Your task to perform on an android device: turn off notifications in google photos Image 0: 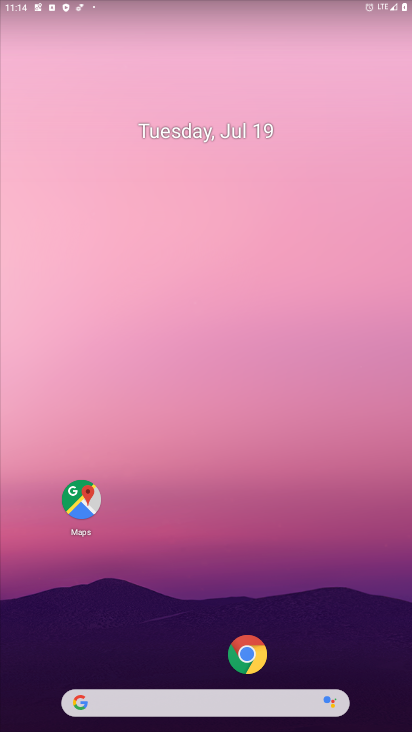
Step 0: drag from (183, 630) to (197, 87)
Your task to perform on an android device: turn off notifications in google photos Image 1: 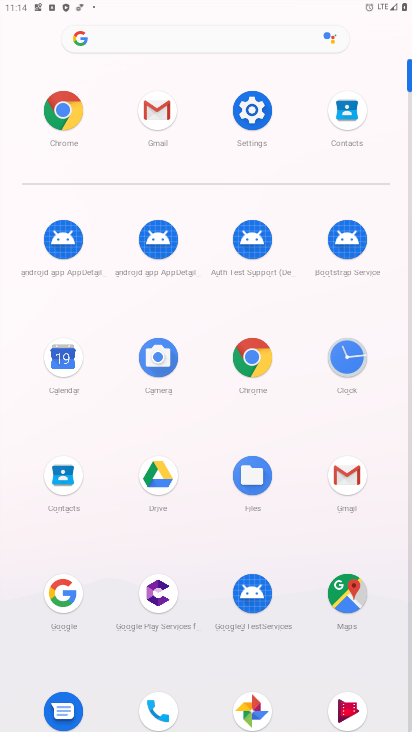
Step 1: click (249, 704)
Your task to perform on an android device: turn off notifications in google photos Image 2: 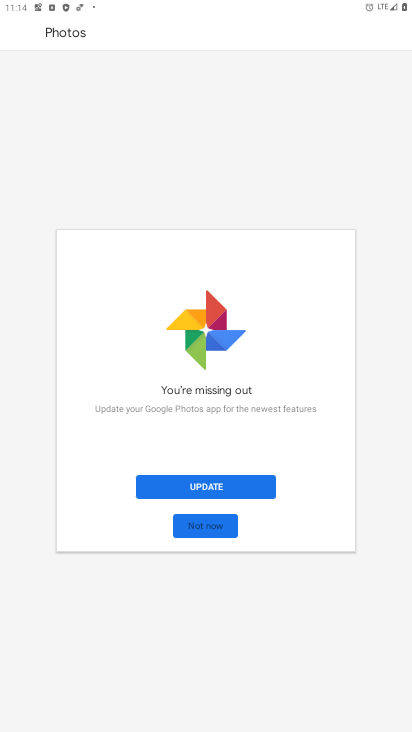
Step 2: click (211, 534)
Your task to perform on an android device: turn off notifications in google photos Image 3: 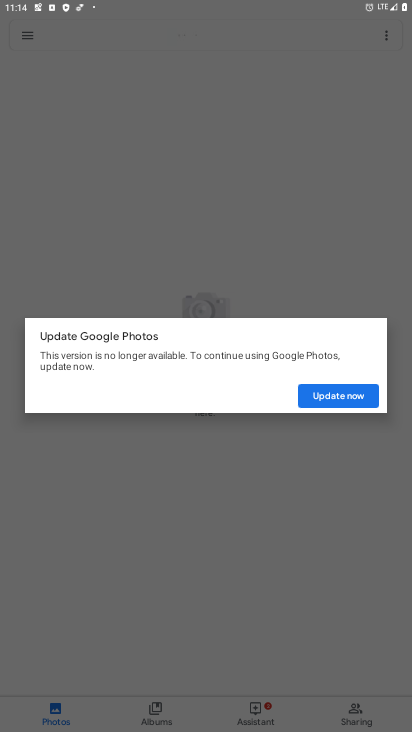
Step 3: click (343, 393)
Your task to perform on an android device: turn off notifications in google photos Image 4: 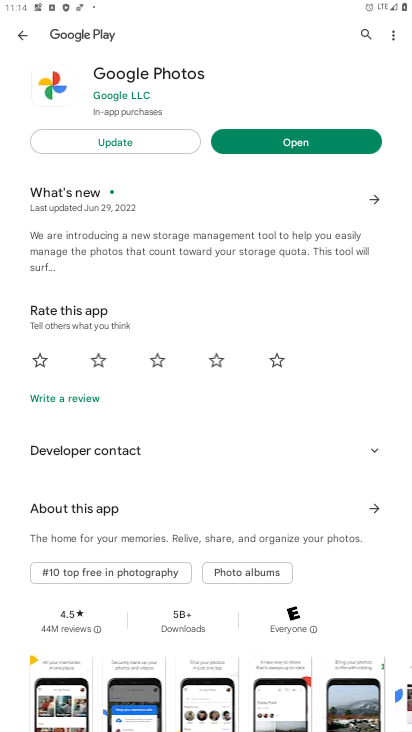
Step 4: click (310, 152)
Your task to perform on an android device: turn off notifications in google photos Image 5: 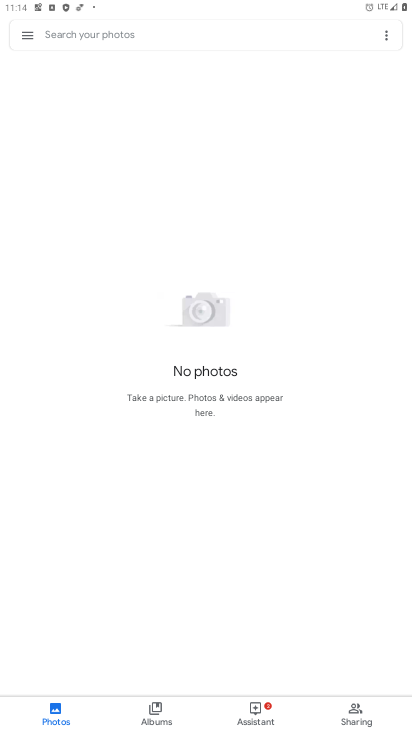
Step 5: click (24, 43)
Your task to perform on an android device: turn off notifications in google photos Image 6: 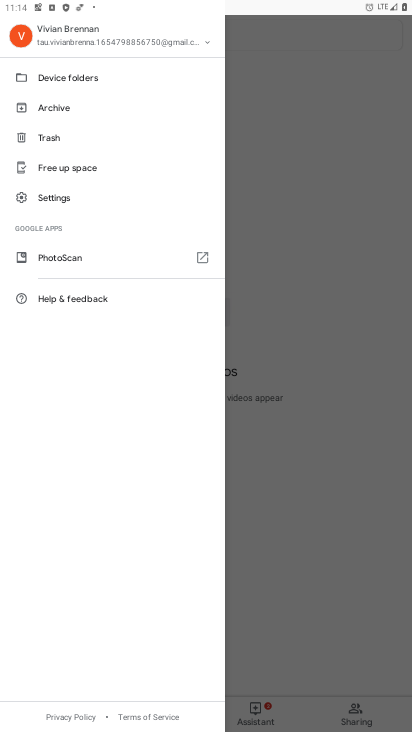
Step 6: click (56, 203)
Your task to perform on an android device: turn off notifications in google photos Image 7: 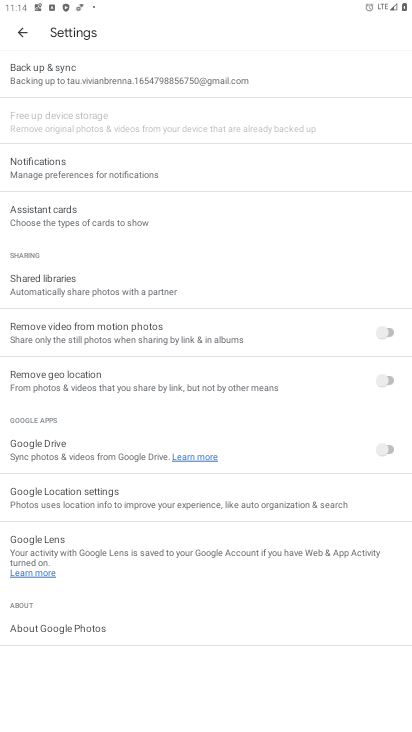
Step 7: click (85, 189)
Your task to perform on an android device: turn off notifications in google photos Image 8: 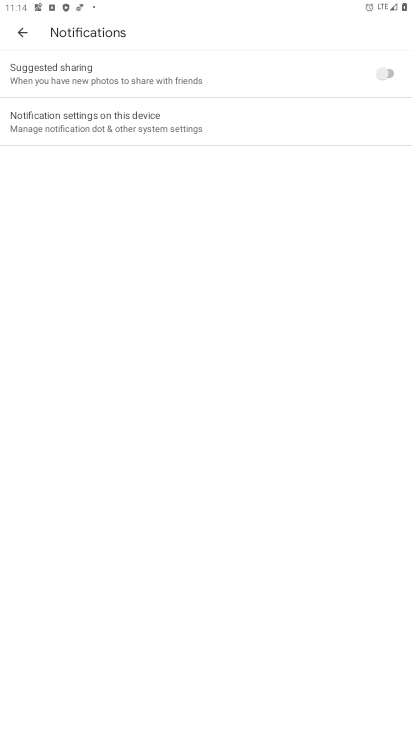
Step 8: click (180, 129)
Your task to perform on an android device: turn off notifications in google photos Image 9: 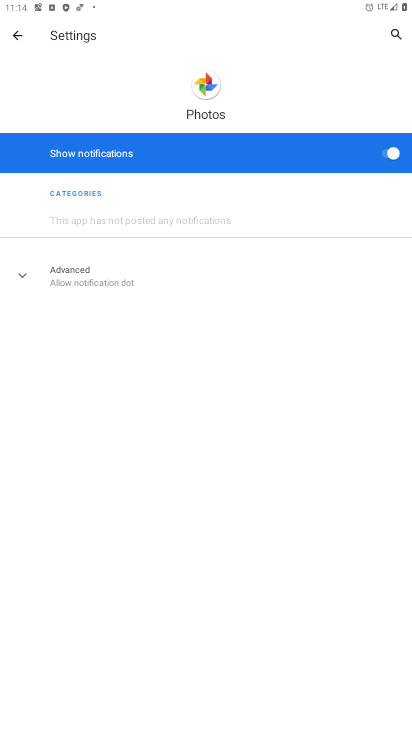
Step 9: click (391, 147)
Your task to perform on an android device: turn off notifications in google photos Image 10: 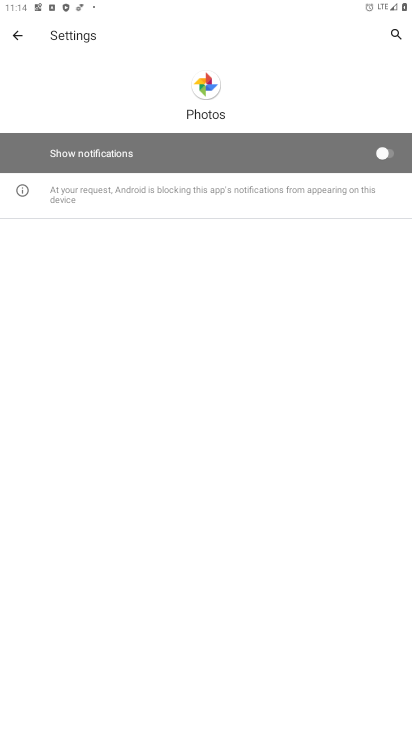
Step 10: task complete